Your task to perform on an android device: Open battery settings Image 0: 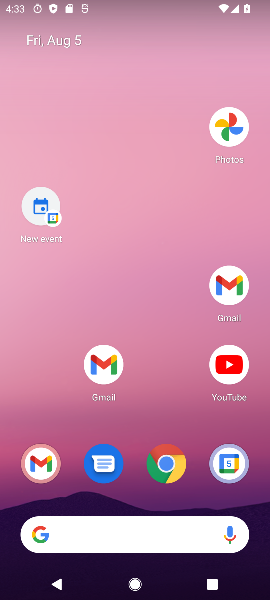
Step 0: press back button
Your task to perform on an android device: Open battery settings Image 1: 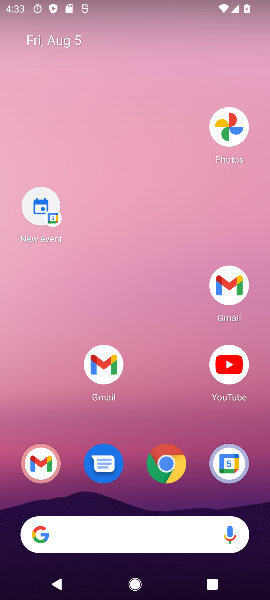
Step 1: drag from (178, 578) to (84, 80)
Your task to perform on an android device: Open battery settings Image 2: 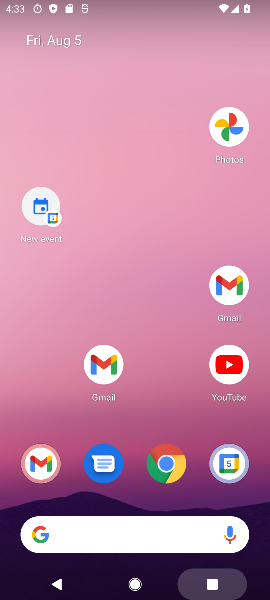
Step 2: drag from (133, 507) to (126, 204)
Your task to perform on an android device: Open battery settings Image 3: 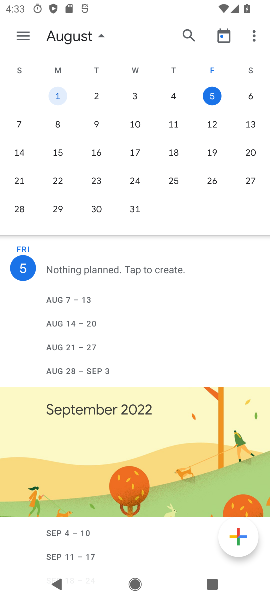
Step 3: drag from (135, 483) to (88, 171)
Your task to perform on an android device: Open battery settings Image 4: 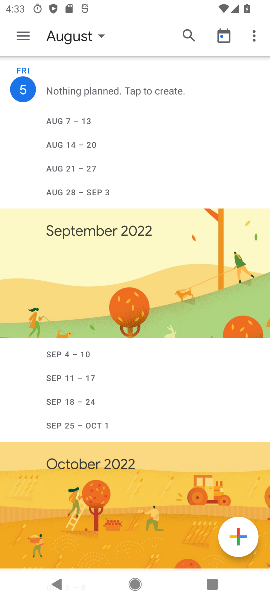
Step 4: press back button
Your task to perform on an android device: Open battery settings Image 5: 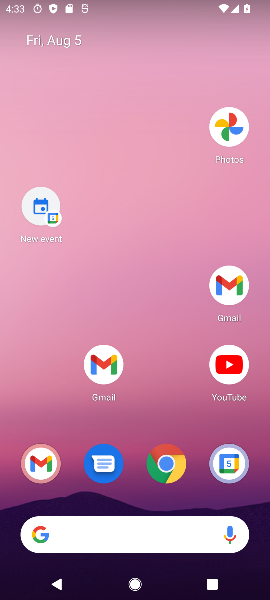
Step 5: drag from (163, 536) to (140, 137)
Your task to perform on an android device: Open battery settings Image 6: 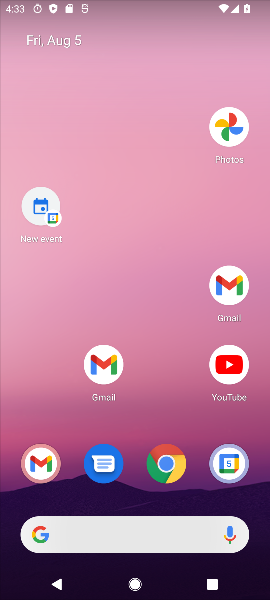
Step 6: drag from (214, 520) to (152, 185)
Your task to perform on an android device: Open battery settings Image 7: 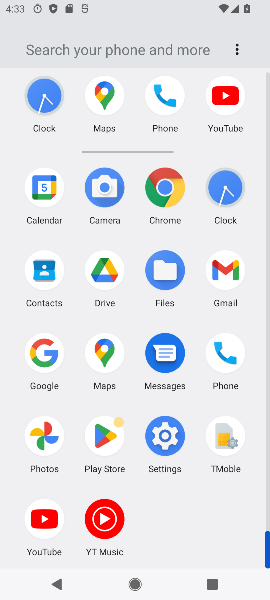
Step 7: drag from (155, 409) to (100, 160)
Your task to perform on an android device: Open battery settings Image 8: 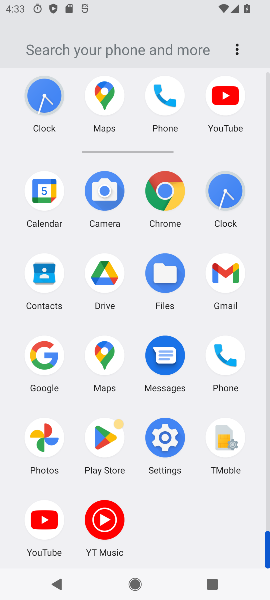
Step 8: click (162, 441)
Your task to perform on an android device: Open battery settings Image 9: 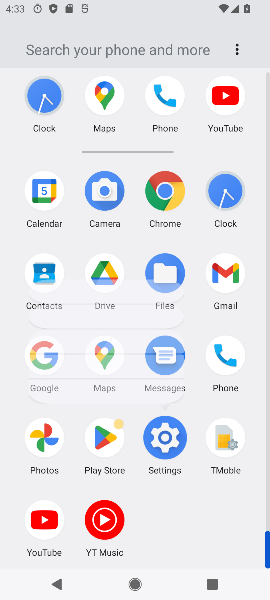
Step 9: click (162, 441)
Your task to perform on an android device: Open battery settings Image 10: 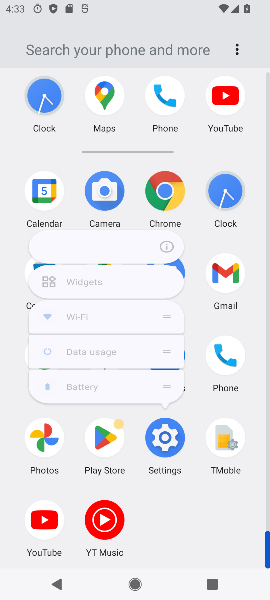
Step 10: click (163, 441)
Your task to perform on an android device: Open battery settings Image 11: 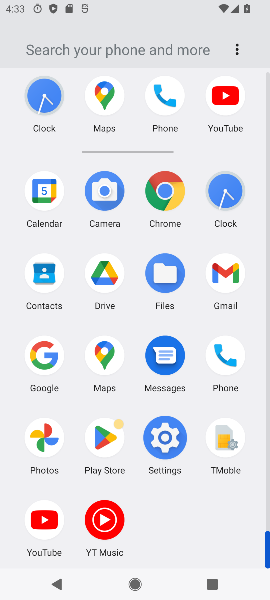
Step 11: click (163, 441)
Your task to perform on an android device: Open battery settings Image 12: 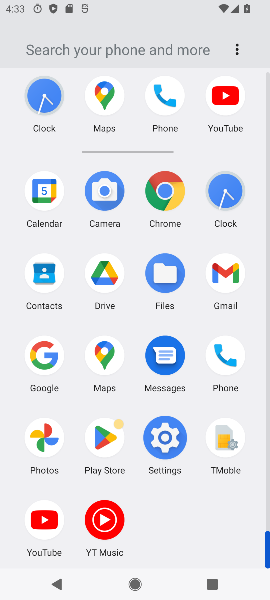
Step 12: click (163, 441)
Your task to perform on an android device: Open battery settings Image 13: 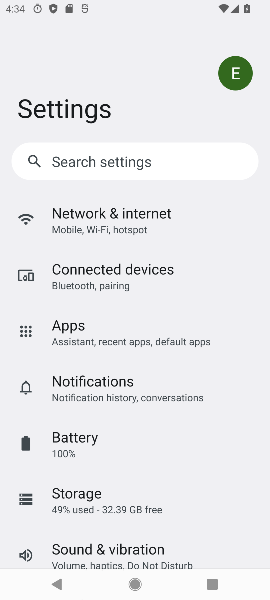
Step 13: click (64, 448)
Your task to perform on an android device: Open battery settings Image 14: 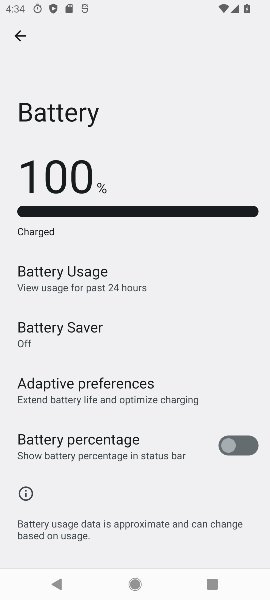
Step 14: task complete